Your task to perform on an android device: Open calendar and show me the first week of next month Image 0: 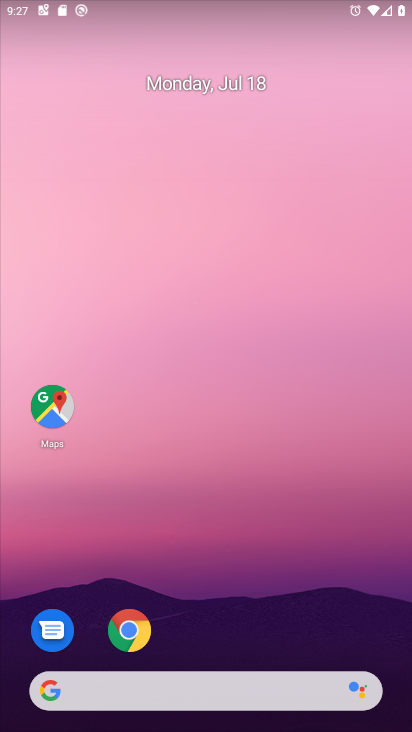
Step 0: drag from (187, 634) to (176, 205)
Your task to perform on an android device: Open calendar and show me the first week of next month Image 1: 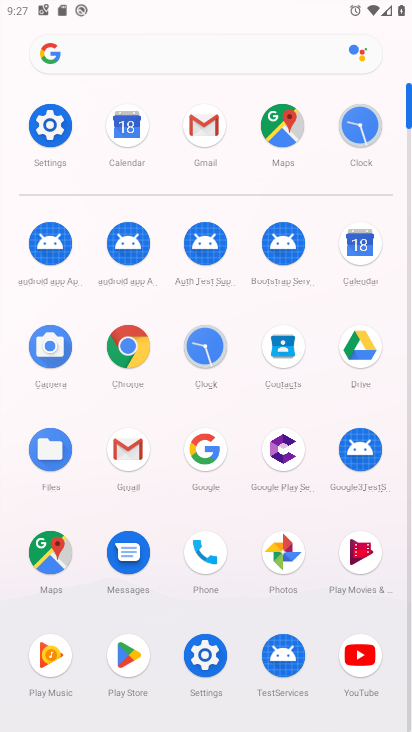
Step 1: click (121, 124)
Your task to perform on an android device: Open calendar and show me the first week of next month Image 2: 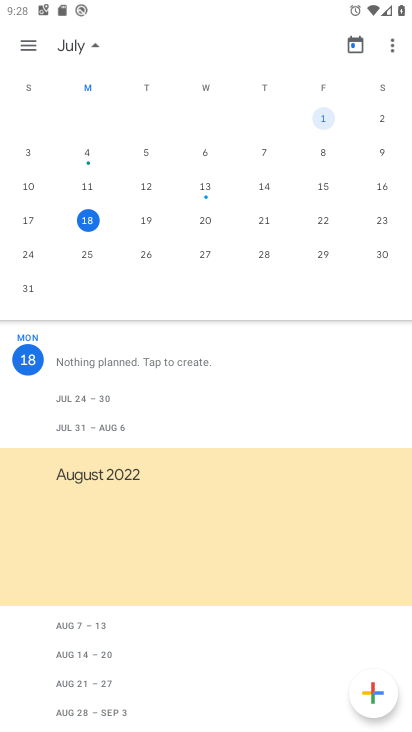
Step 2: task complete